Your task to perform on an android device: toggle sleep mode Image 0: 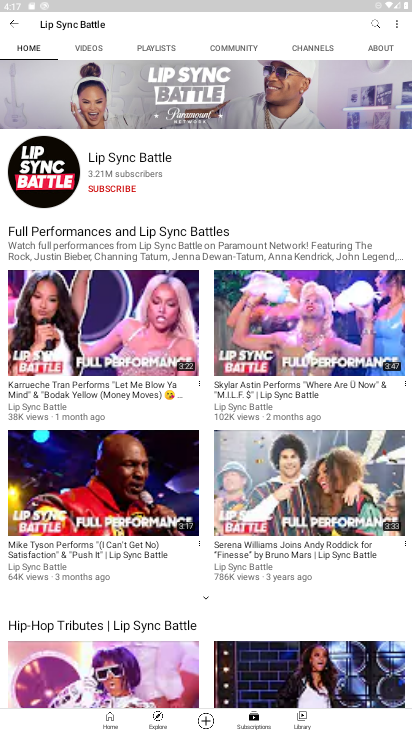
Step 0: press home button
Your task to perform on an android device: toggle sleep mode Image 1: 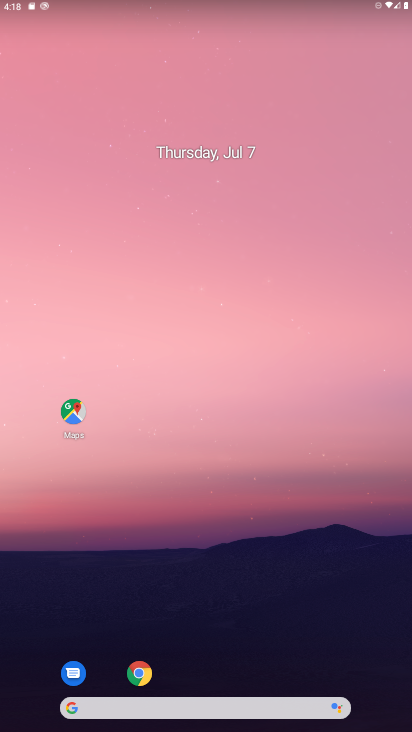
Step 1: drag from (217, 681) to (224, 0)
Your task to perform on an android device: toggle sleep mode Image 2: 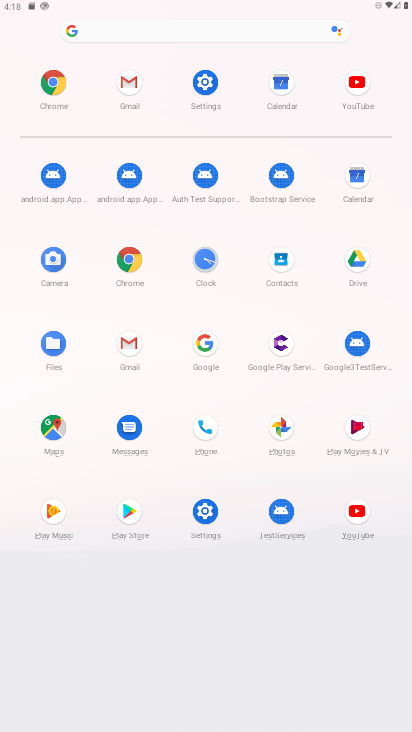
Step 2: click (203, 76)
Your task to perform on an android device: toggle sleep mode Image 3: 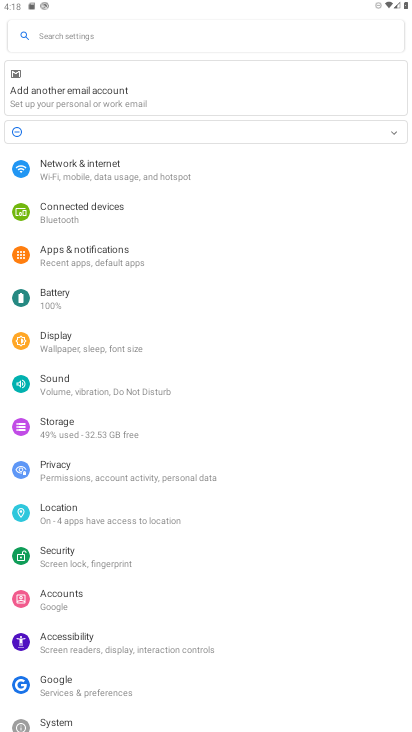
Step 3: click (78, 336)
Your task to perform on an android device: toggle sleep mode Image 4: 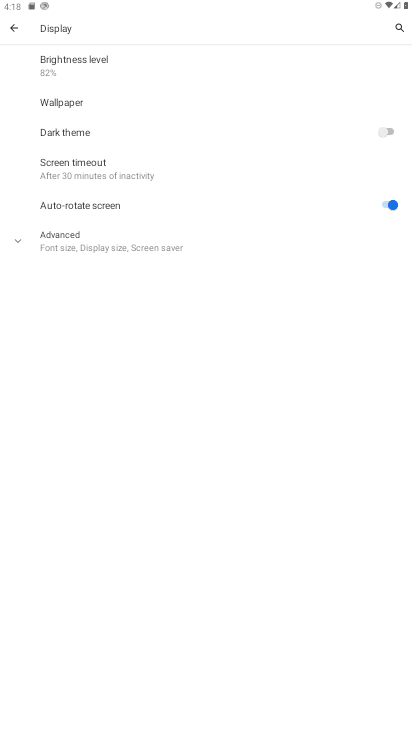
Step 4: click (15, 237)
Your task to perform on an android device: toggle sleep mode Image 5: 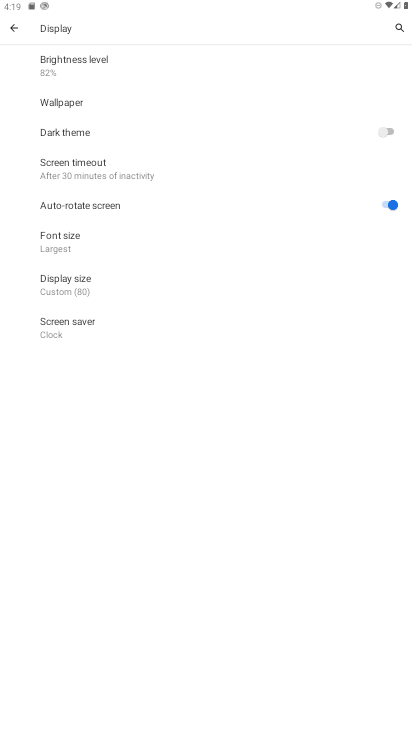
Step 5: task complete